Your task to perform on an android device: Show me recent news Image 0: 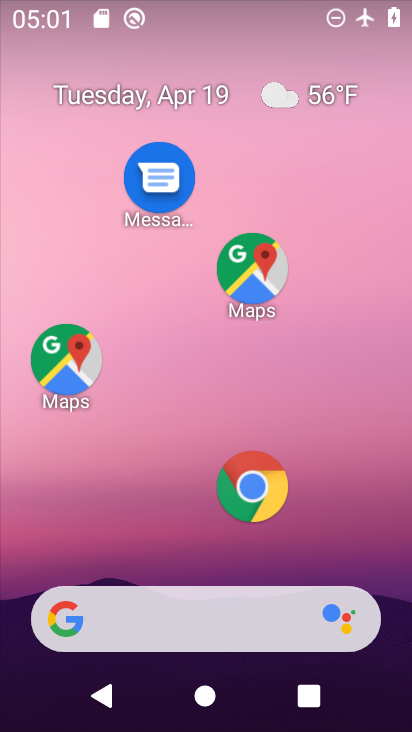
Step 0: drag from (115, 568) to (226, 186)
Your task to perform on an android device: Show me recent news Image 1: 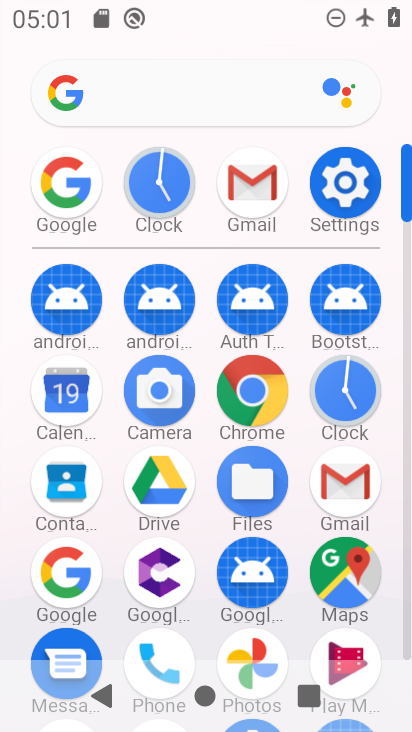
Step 1: click (93, 222)
Your task to perform on an android device: Show me recent news Image 2: 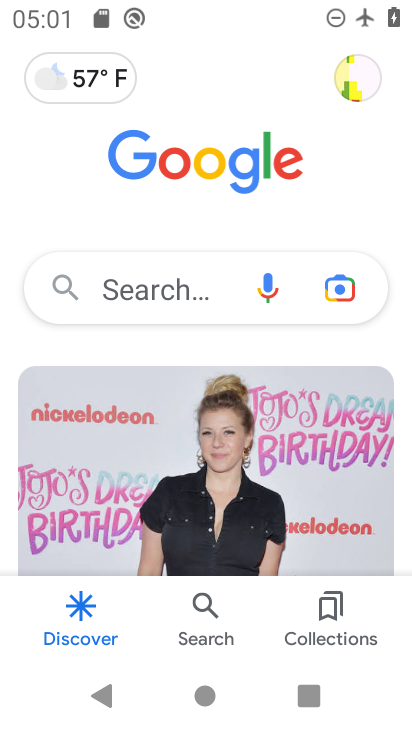
Step 2: task complete